Your task to perform on an android device: See recent photos Image 0: 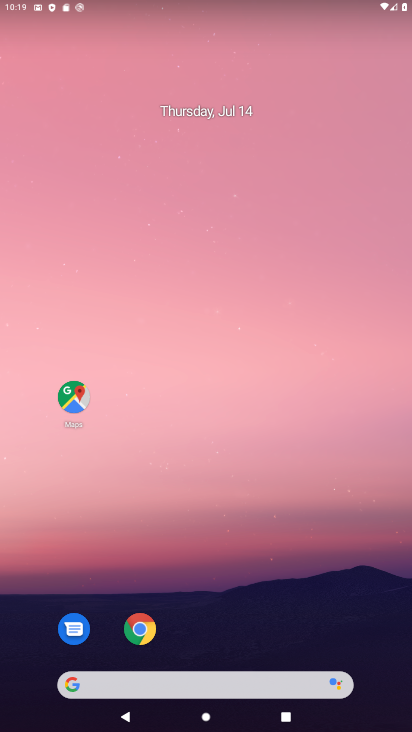
Step 0: drag from (274, 614) to (314, 69)
Your task to perform on an android device: See recent photos Image 1: 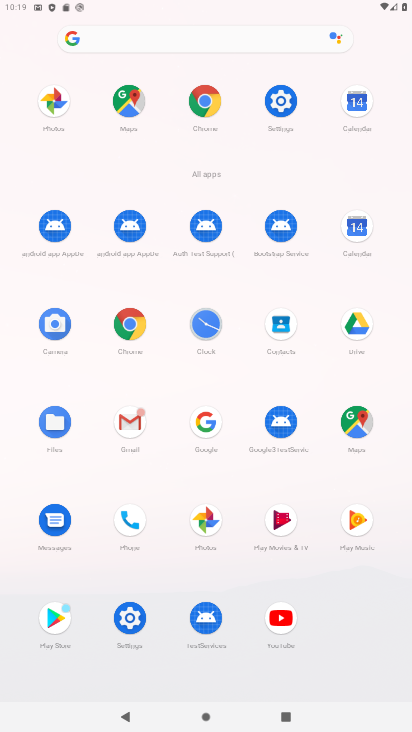
Step 1: click (207, 511)
Your task to perform on an android device: See recent photos Image 2: 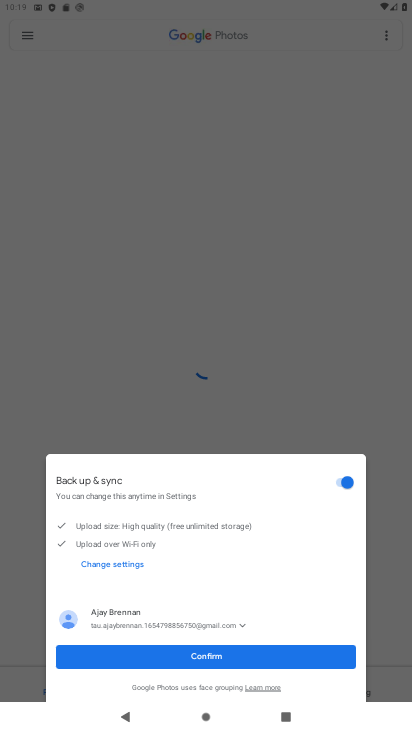
Step 2: click (200, 653)
Your task to perform on an android device: See recent photos Image 3: 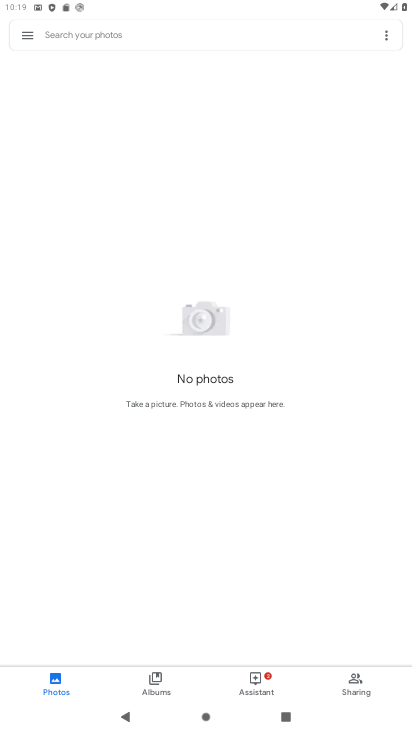
Step 3: task complete